Your task to perform on an android device: add a label to a message in the gmail app Image 0: 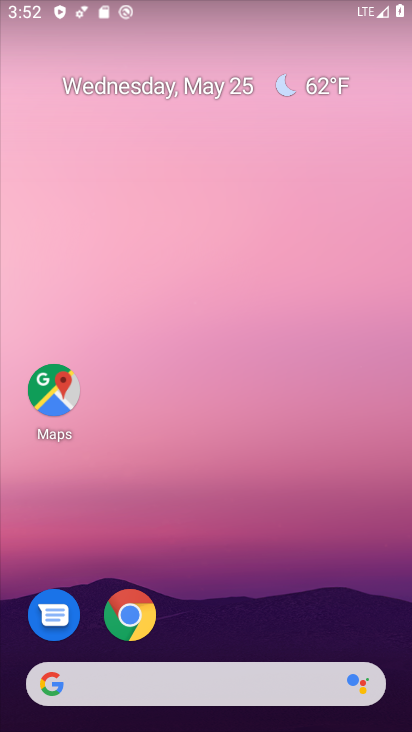
Step 0: drag from (258, 184) to (213, 4)
Your task to perform on an android device: add a label to a message in the gmail app Image 1: 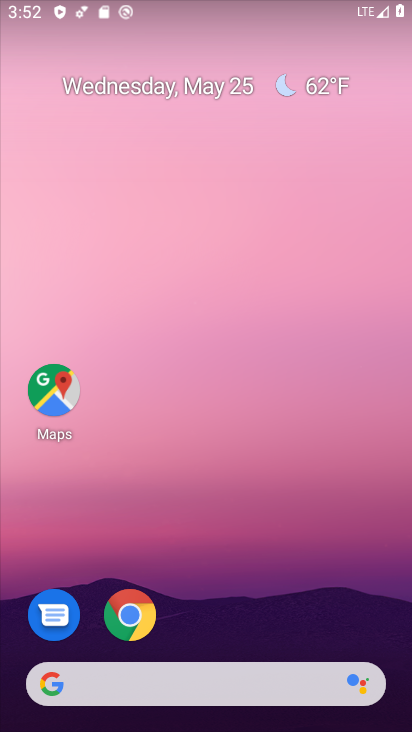
Step 1: drag from (317, 363) to (261, 10)
Your task to perform on an android device: add a label to a message in the gmail app Image 2: 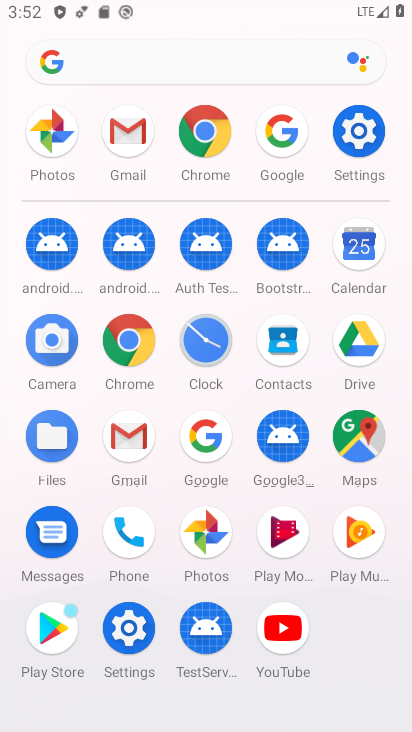
Step 2: click (134, 132)
Your task to perform on an android device: add a label to a message in the gmail app Image 3: 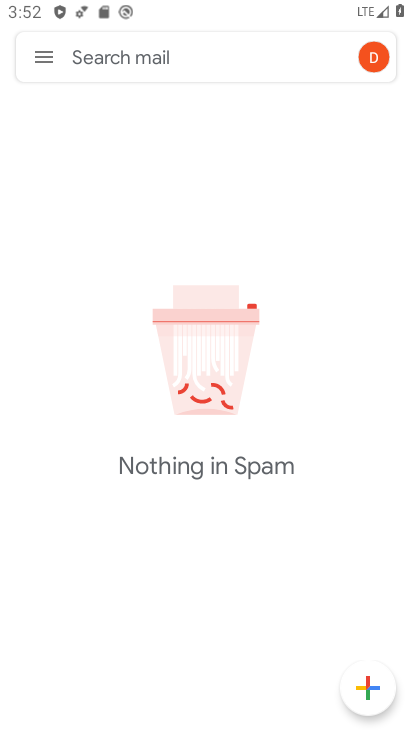
Step 3: click (42, 54)
Your task to perform on an android device: add a label to a message in the gmail app Image 4: 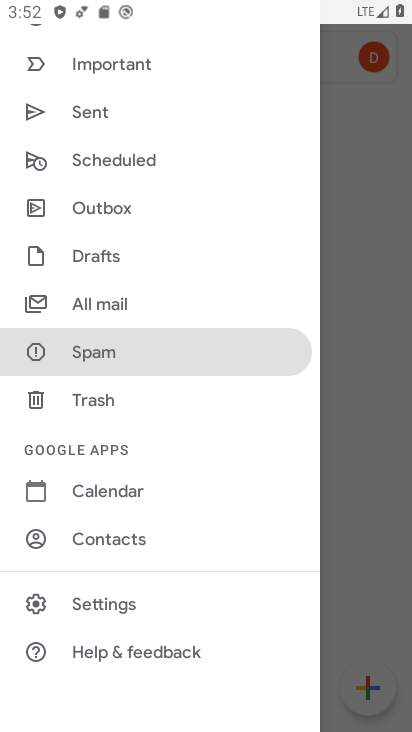
Step 4: drag from (176, 119) to (137, 663)
Your task to perform on an android device: add a label to a message in the gmail app Image 5: 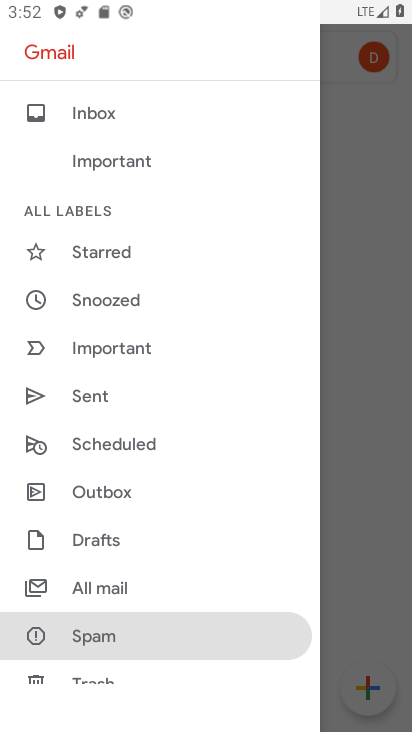
Step 5: click (138, 120)
Your task to perform on an android device: add a label to a message in the gmail app Image 6: 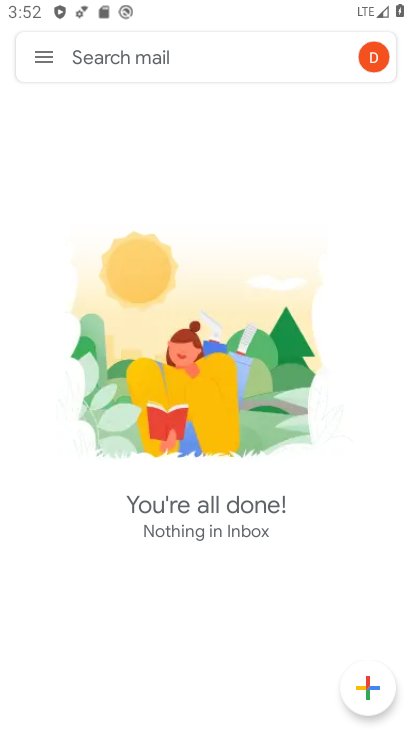
Step 6: task complete